Your task to perform on an android device: see tabs open on other devices in the chrome app Image 0: 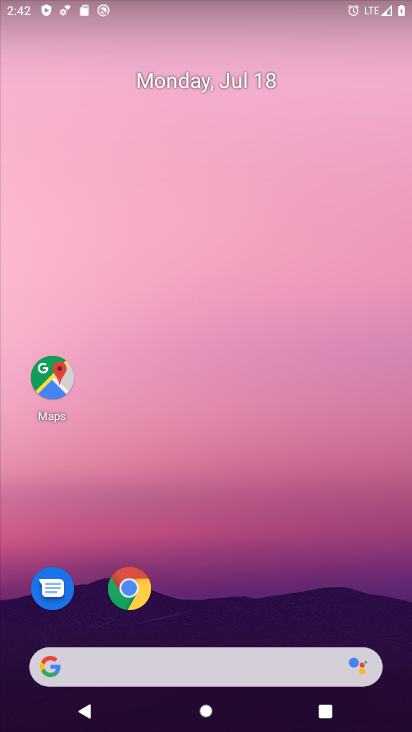
Step 0: click (126, 583)
Your task to perform on an android device: see tabs open on other devices in the chrome app Image 1: 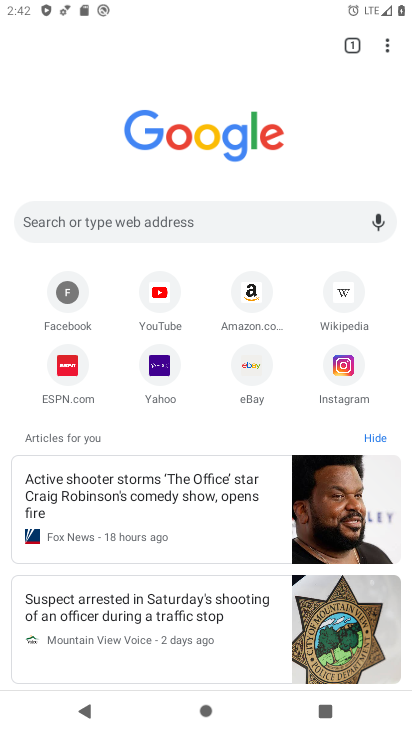
Step 1: task complete